Your task to perform on an android device: change your default location settings in chrome Image 0: 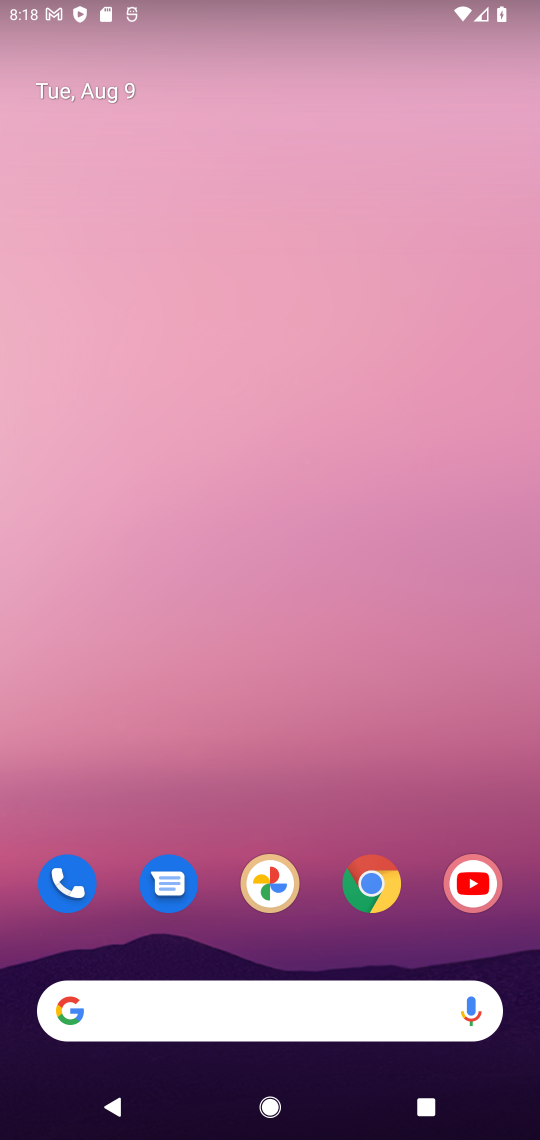
Step 0: drag from (322, 721) to (301, 77)
Your task to perform on an android device: change your default location settings in chrome Image 1: 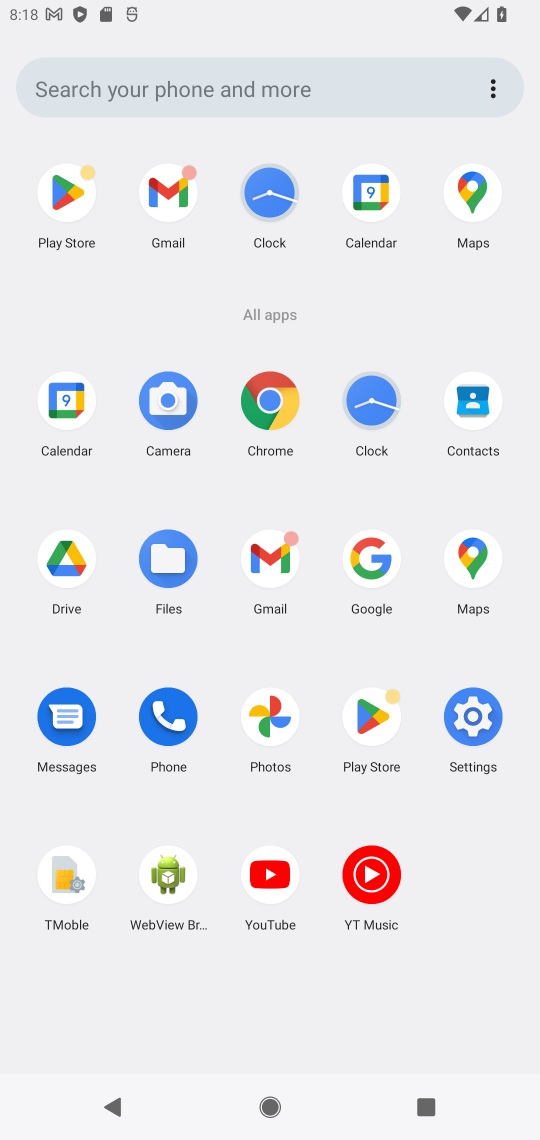
Step 1: click (269, 399)
Your task to perform on an android device: change your default location settings in chrome Image 2: 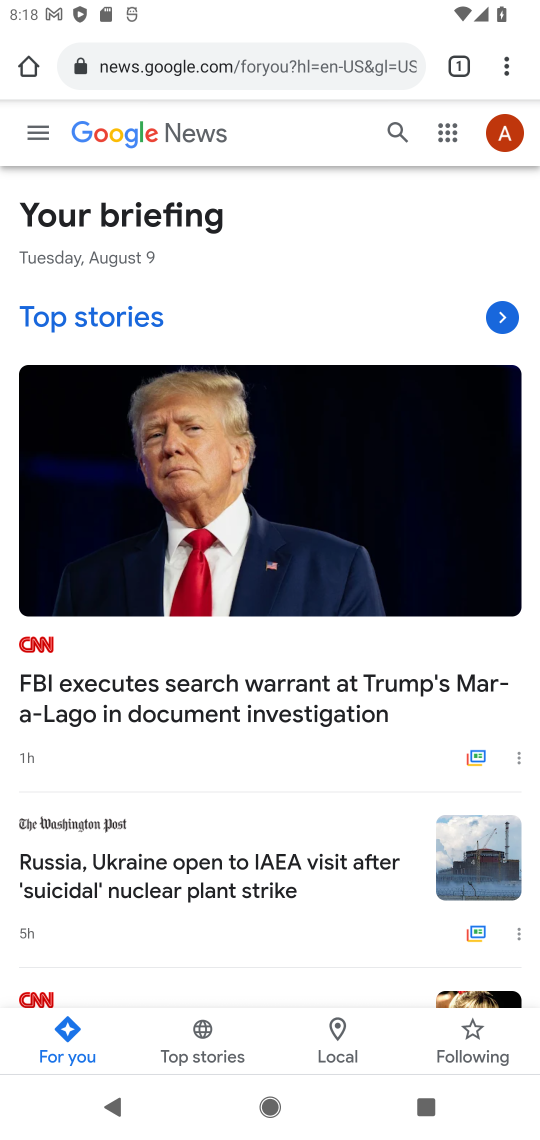
Step 2: drag from (512, 60) to (323, 803)
Your task to perform on an android device: change your default location settings in chrome Image 3: 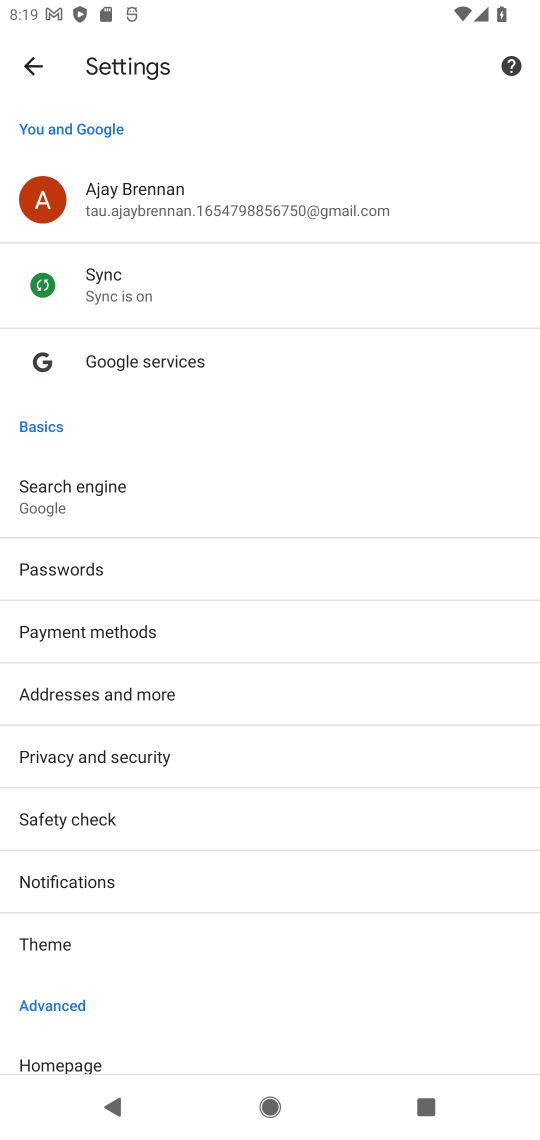
Step 3: drag from (238, 946) to (401, 358)
Your task to perform on an android device: change your default location settings in chrome Image 4: 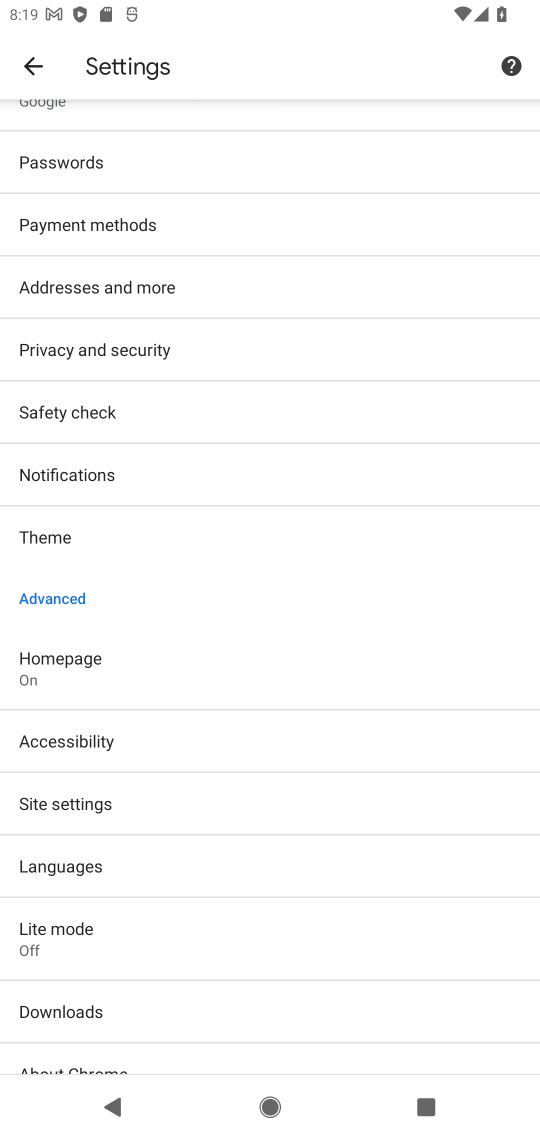
Step 4: drag from (277, 1063) to (296, 1008)
Your task to perform on an android device: change your default location settings in chrome Image 5: 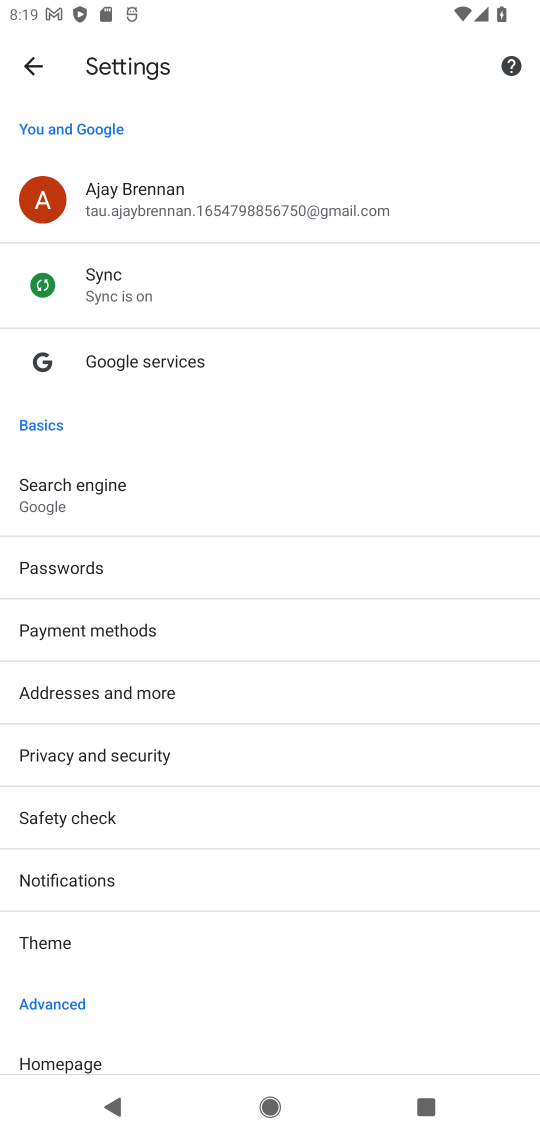
Step 5: drag from (277, 996) to (394, 386)
Your task to perform on an android device: change your default location settings in chrome Image 6: 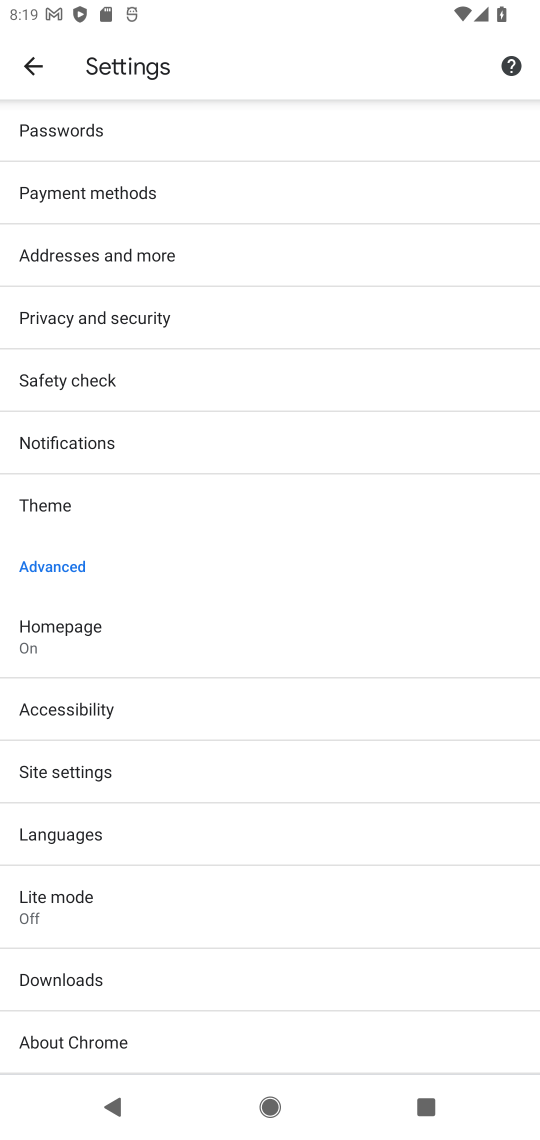
Step 6: click (67, 778)
Your task to perform on an android device: change your default location settings in chrome Image 7: 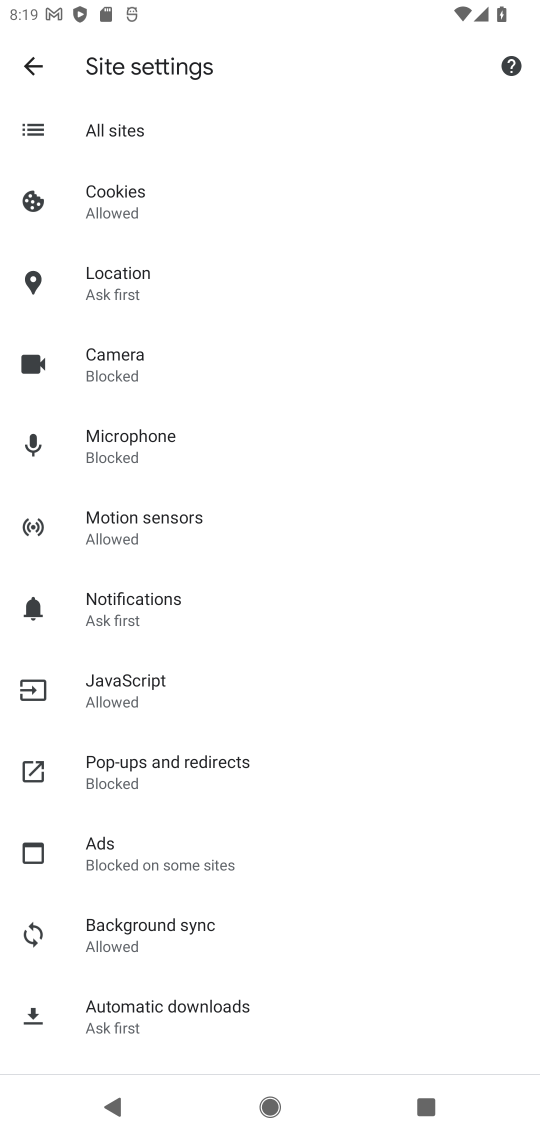
Step 7: click (120, 288)
Your task to perform on an android device: change your default location settings in chrome Image 8: 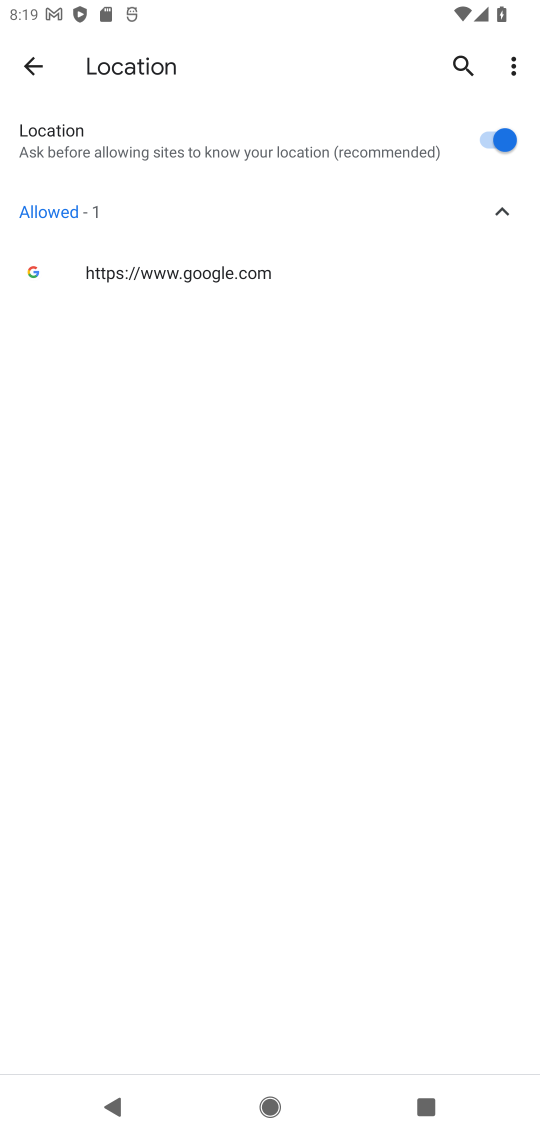
Step 8: click (502, 136)
Your task to perform on an android device: change your default location settings in chrome Image 9: 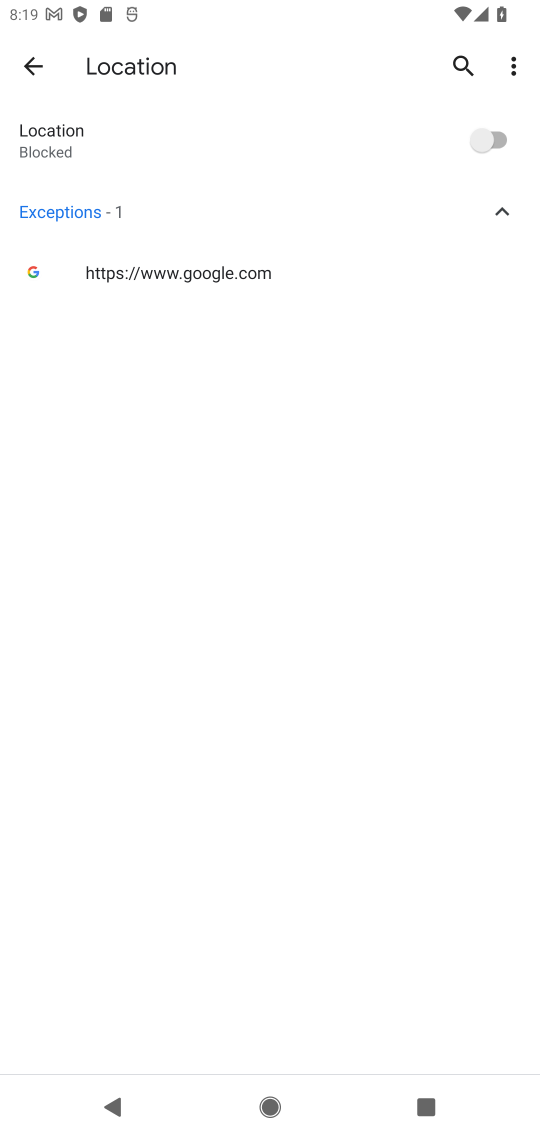
Step 9: task complete